Your task to perform on an android device: Open Wikipedia Image 0: 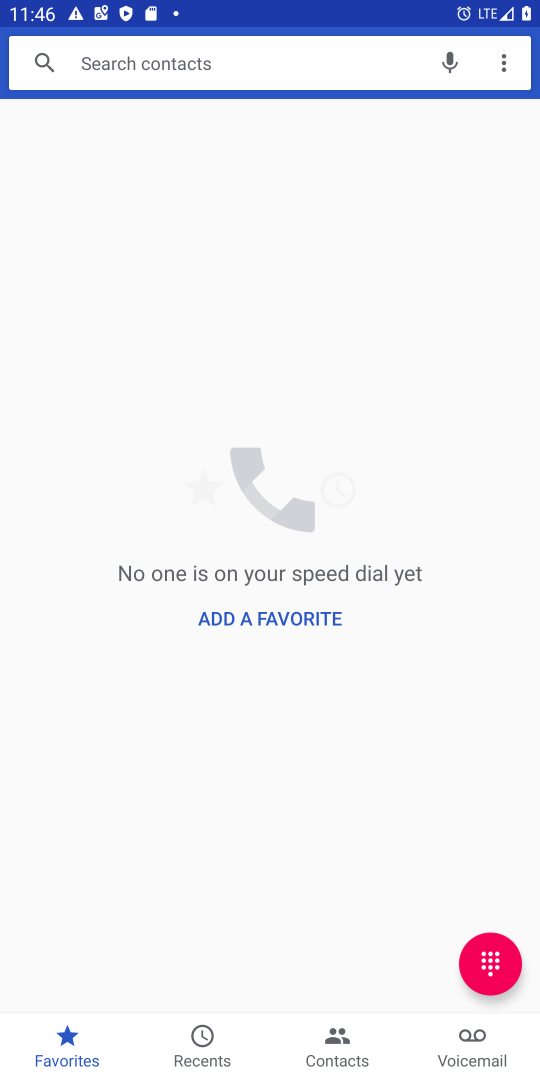
Step 0: press home button
Your task to perform on an android device: Open Wikipedia Image 1: 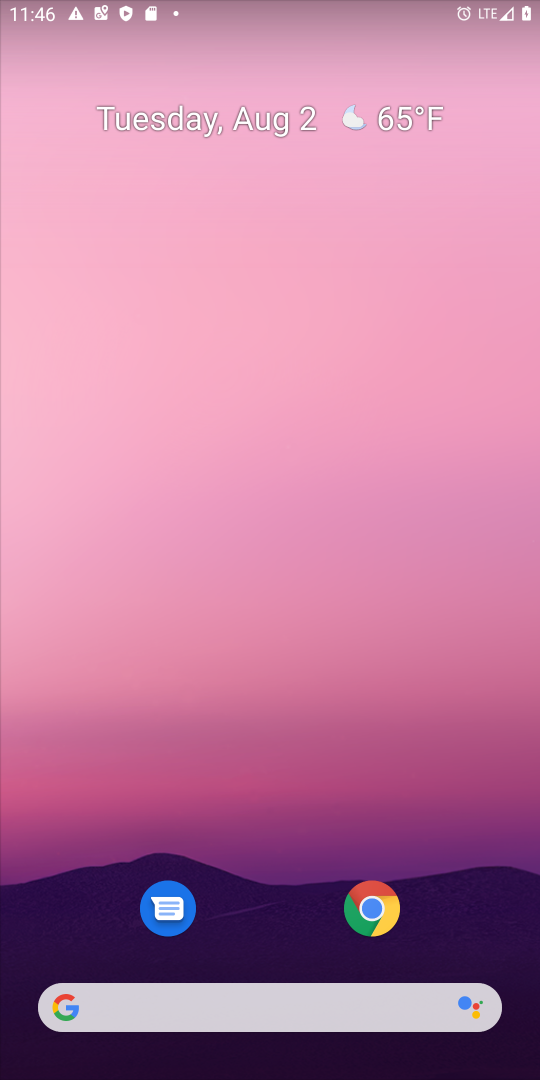
Step 1: drag from (244, 725) to (282, 64)
Your task to perform on an android device: Open Wikipedia Image 2: 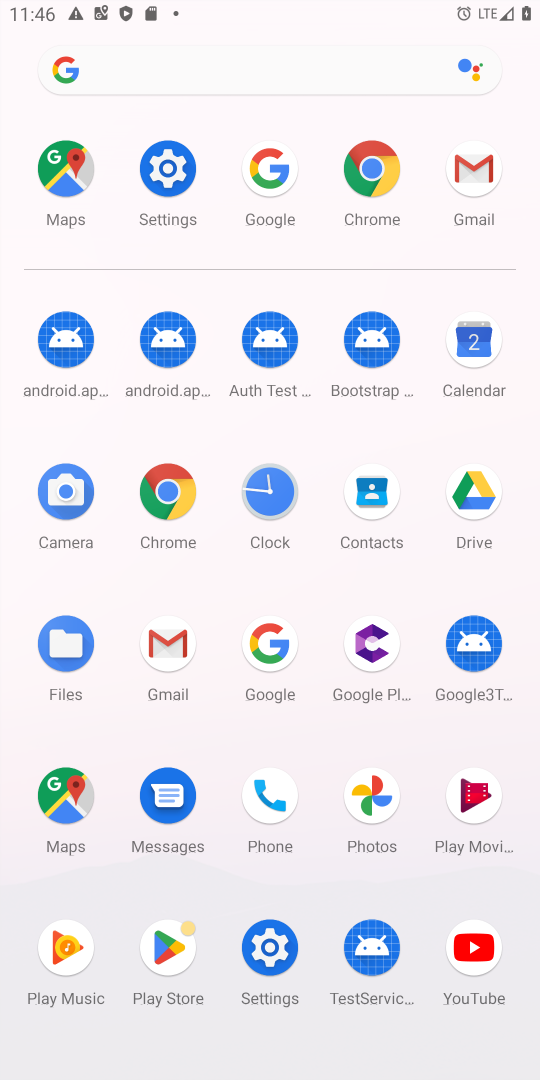
Step 2: click (169, 513)
Your task to perform on an android device: Open Wikipedia Image 3: 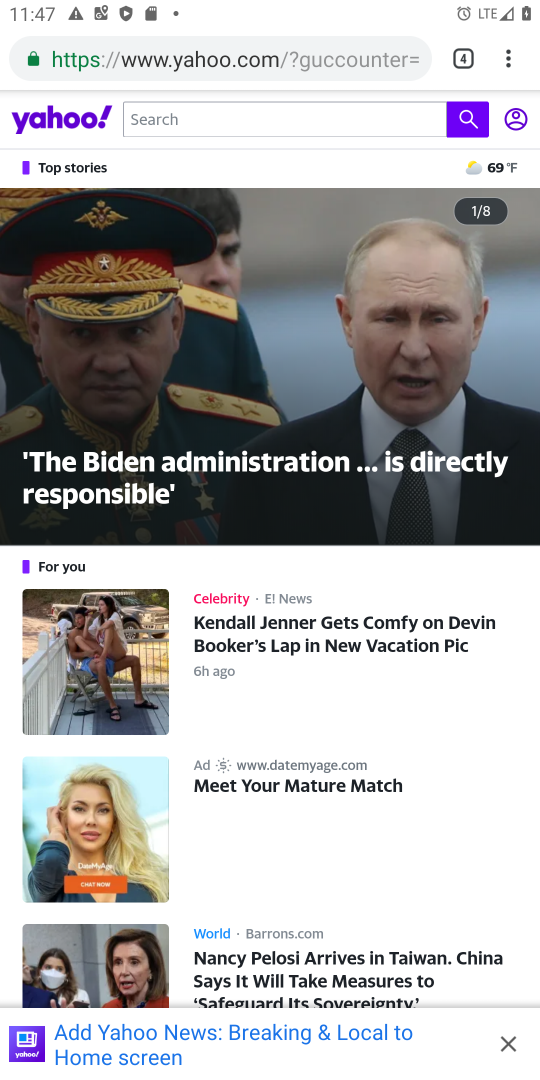
Step 3: click (473, 67)
Your task to perform on an android device: Open Wikipedia Image 4: 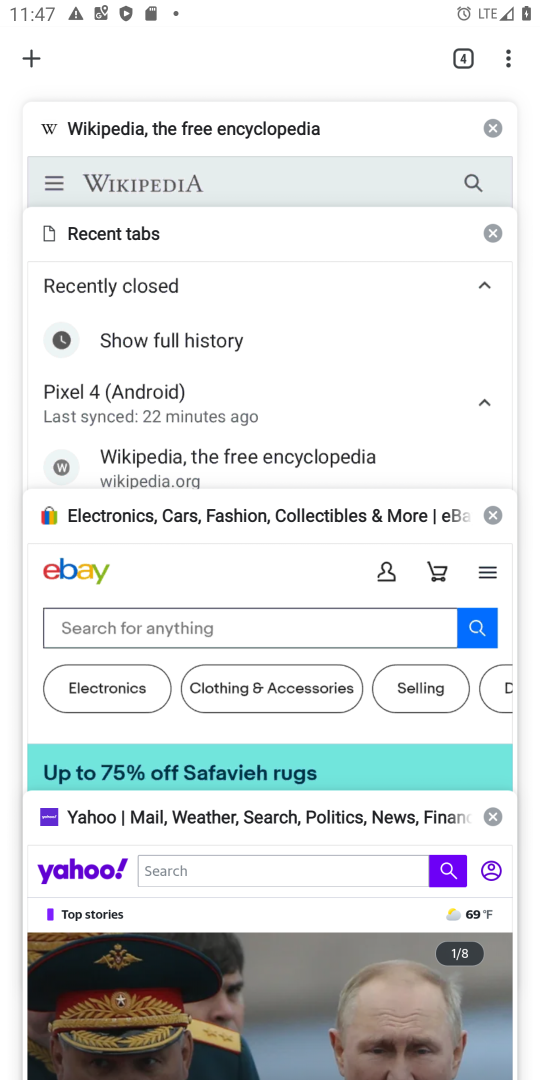
Step 4: click (31, 65)
Your task to perform on an android device: Open Wikipedia Image 5: 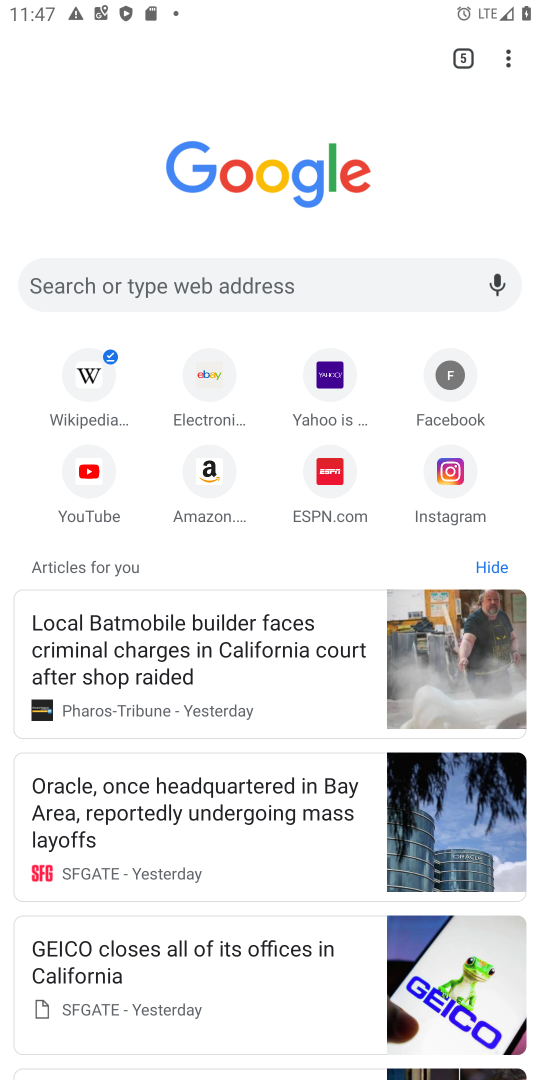
Step 5: click (83, 387)
Your task to perform on an android device: Open Wikipedia Image 6: 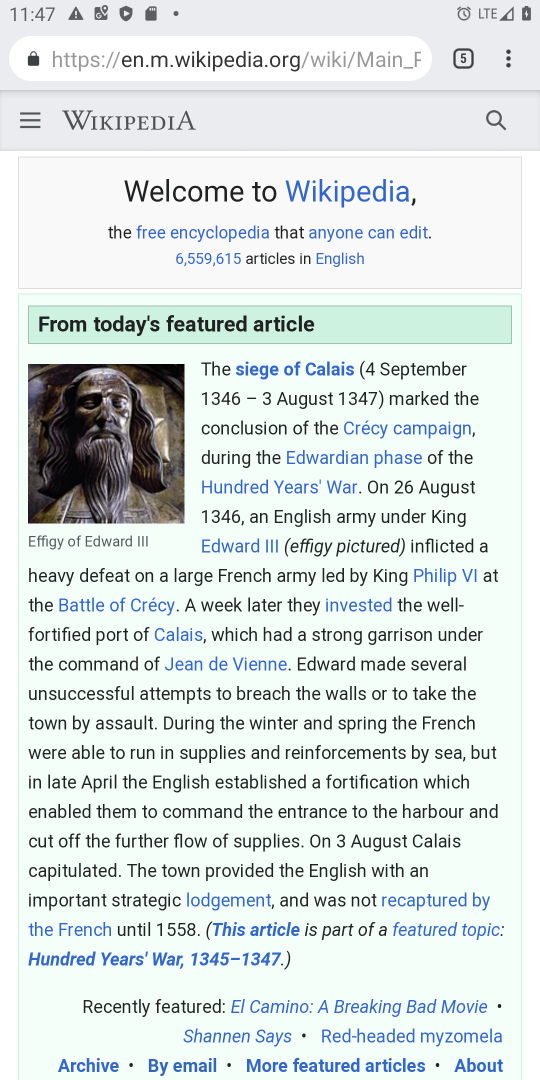
Step 6: task complete